Your task to perform on an android device: Go to internet settings Image 0: 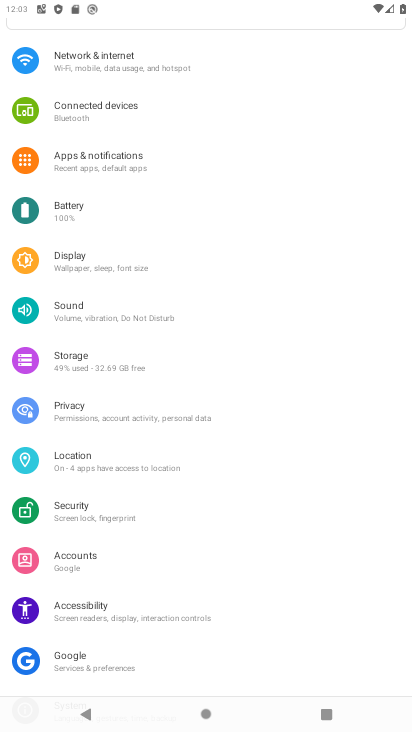
Step 0: click (82, 47)
Your task to perform on an android device: Go to internet settings Image 1: 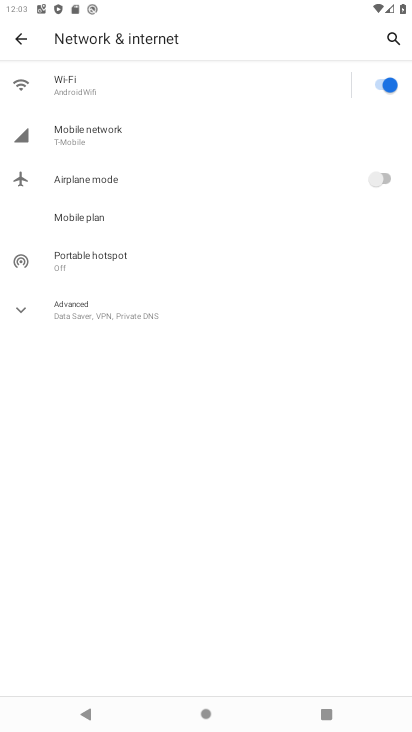
Step 1: task complete